Your task to perform on an android device: Open network settings Image 0: 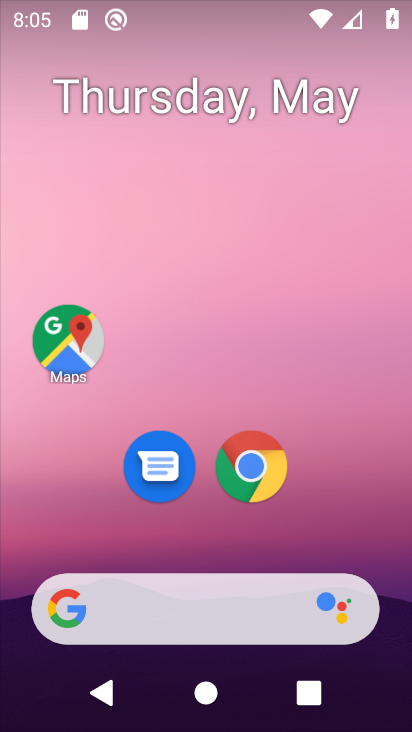
Step 0: drag from (344, 514) to (295, 122)
Your task to perform on an android device: Open network settings Image 1: 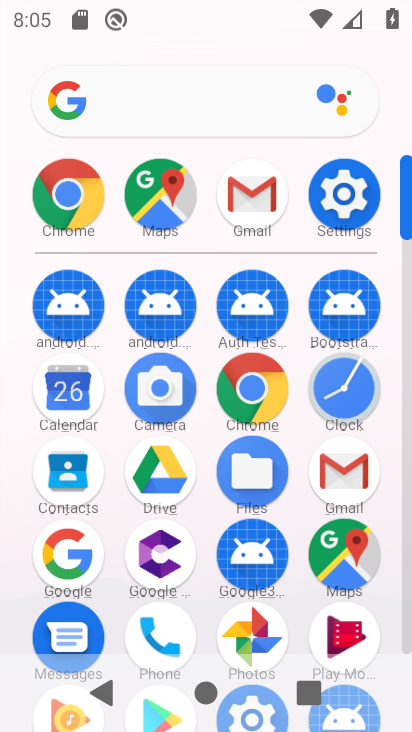
Step 1: click (349, 223)
Your task to perform on an android device: Open network settings Image 2: 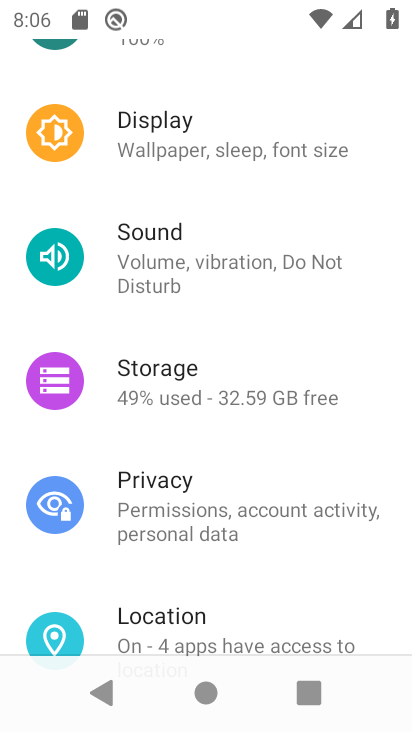
Step 2: drag from (244, 203) to (254, 727)
Your task to perform on an android device: Open network settings Image 3: 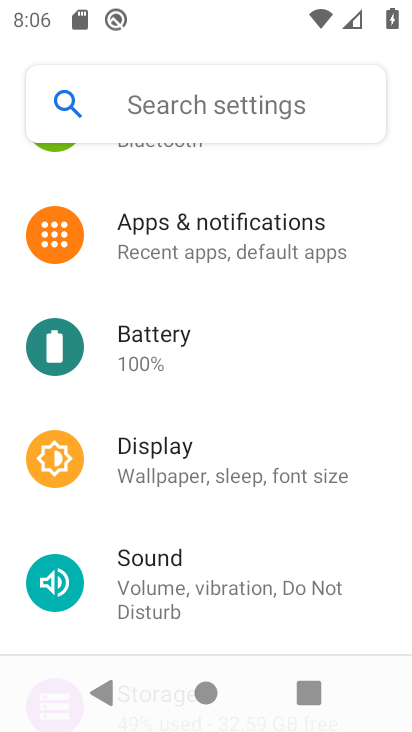
Step 3: drag from (287, 270) to (274, 617)
Your task to perform on an android device: Open network settings Image 4: 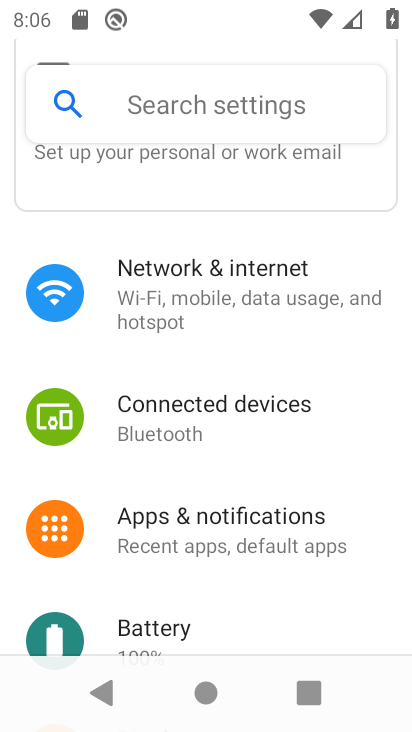
Step 4: click (311, 304)
Your task to perform on an android device: Open network settings Image 5: 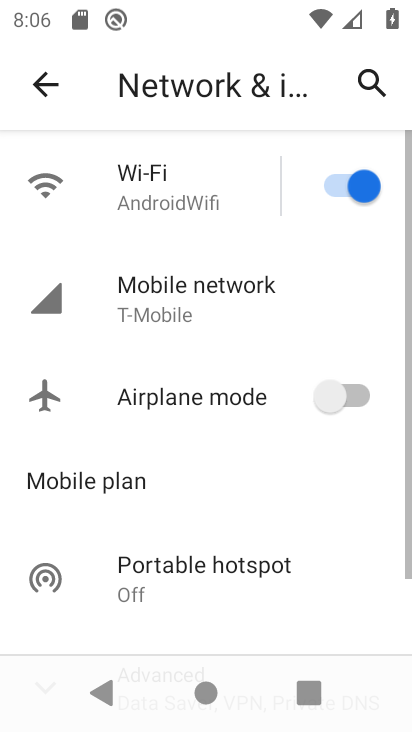
Step 5: task complete